Your task to perform on an android device: Set the phone to "Do not disturb". Image 0: 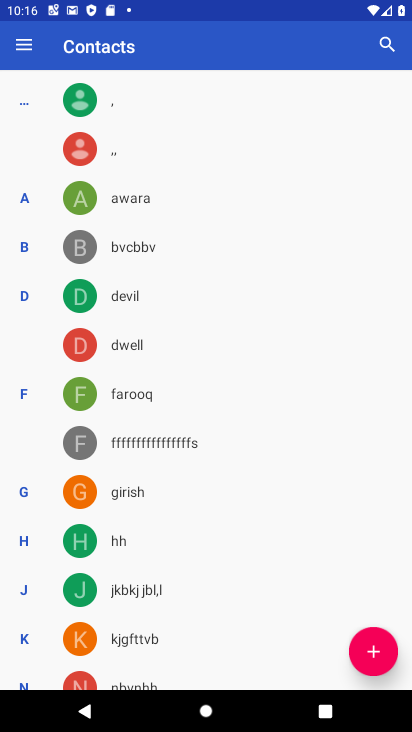
Step 0: press home button
Your task to perform on an android device: Set the phone to "Do not disturb". Image 1: 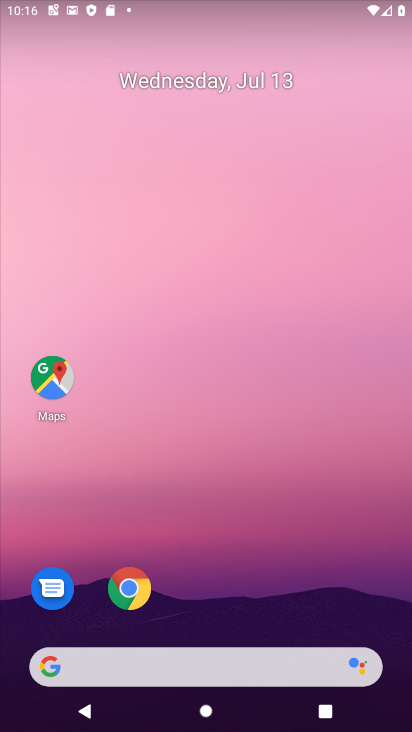
Step 1: drag from (193, 6) to (221, 470)
Your task to perform on an android device: Set the phone to "Do not disturb". Image 2: 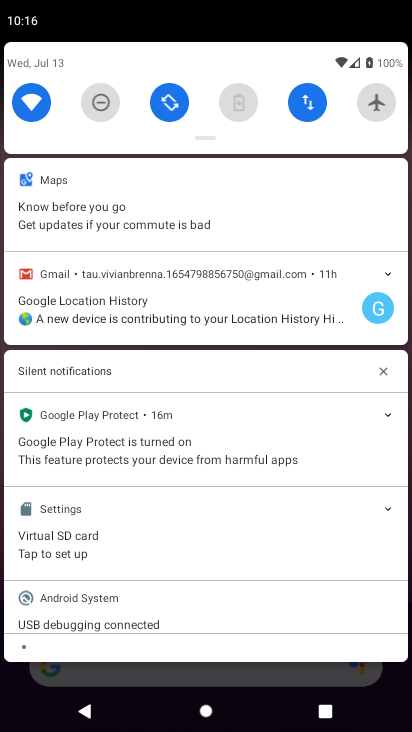
Step 2: click (95, 98)
Your task to perform on an android device: Set the phone to "Do not disturb". Image 3: 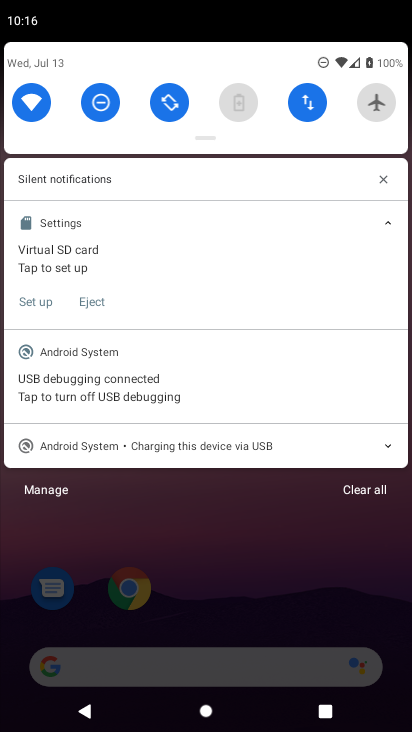
Step 3: task complete